Your task to perform on an android device: Open Reddit.com Image 0: 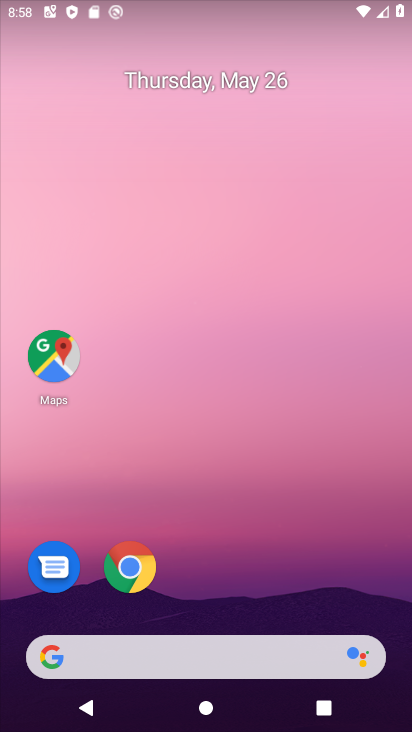
Step 0: click (135, 571)
Your task to perform on an android device: Open Reddit.com Image 1: 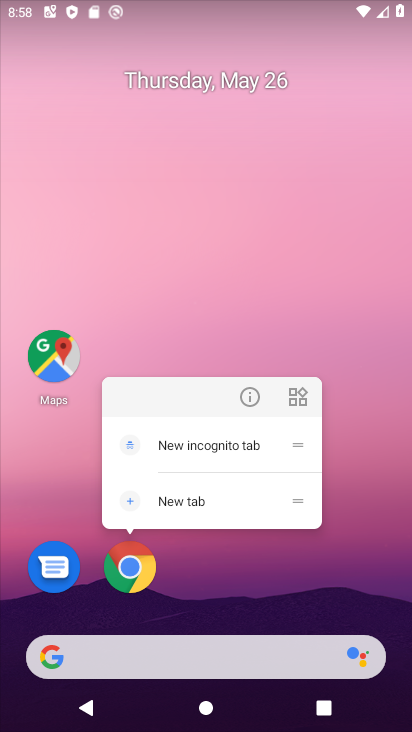
Step 1: click (126, 576)
Your task to perform on an android device: Open Reddit.com Image 2: 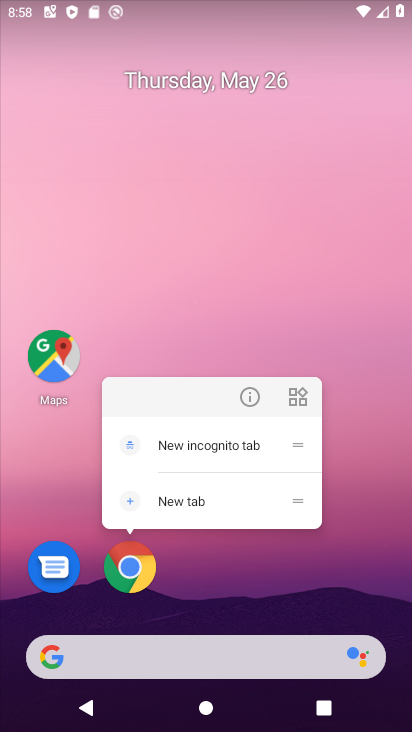
Step 2: click (137, 565)
Your task to perform on an android device: Open Reddit.com Image 3: 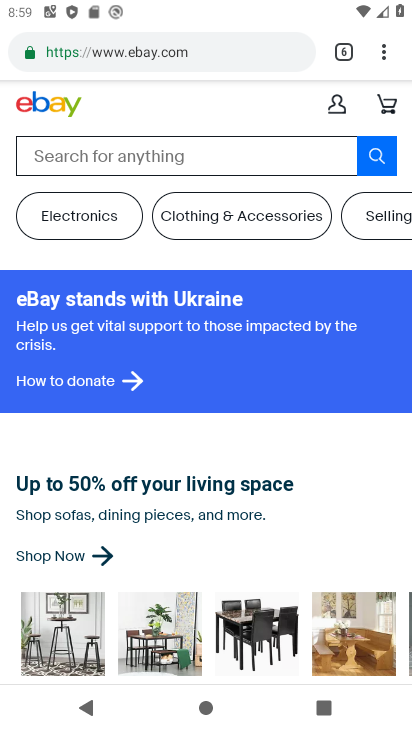
Step 3: drag from (382, 50) to (276, 102)
Your task to perform on an android device: Open Reddit.com Image 4: 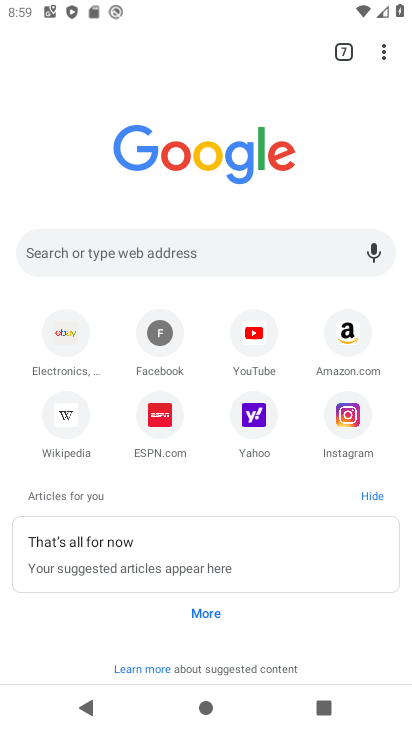
Step 4: click (147, 249)
Your task to perform on an android device: Open Reddit.com Image 5: 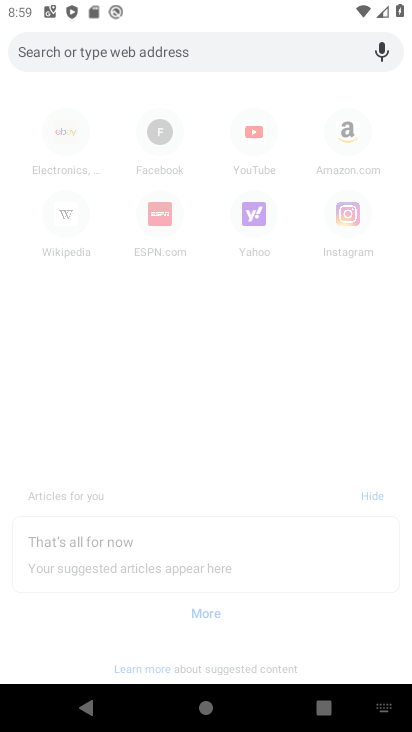
Step 5: type "reddit.com"
Your task to perform on an android device: Open Reddit.com Image 6: 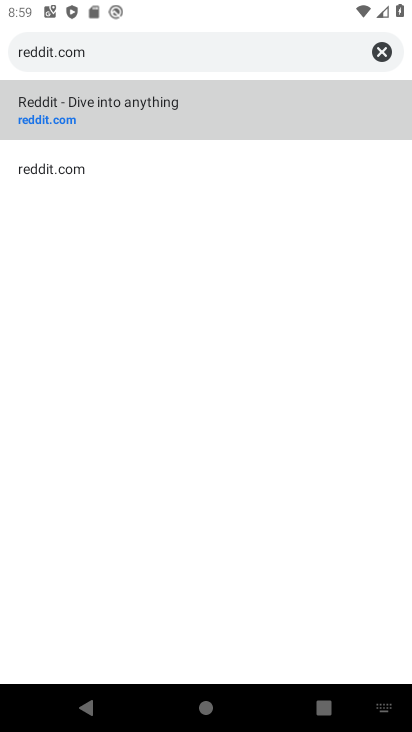
Step 6: click (91, 105)
Your task to perform on an android device: Open Reddit.com Image 7: 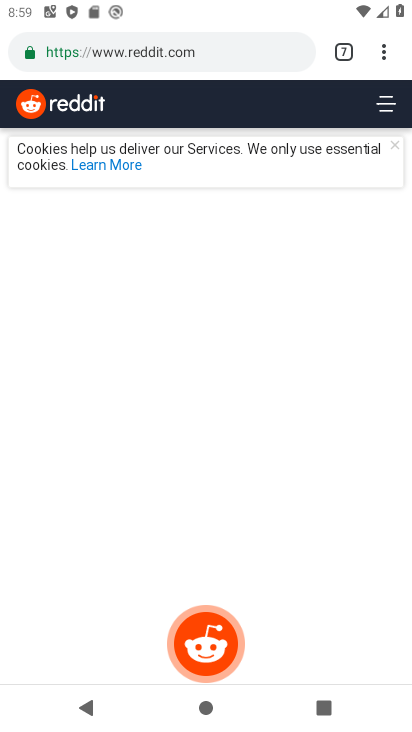
Step 7: task complete